Your task to perform on an android device: delete a single message in the gmail app Image 0: 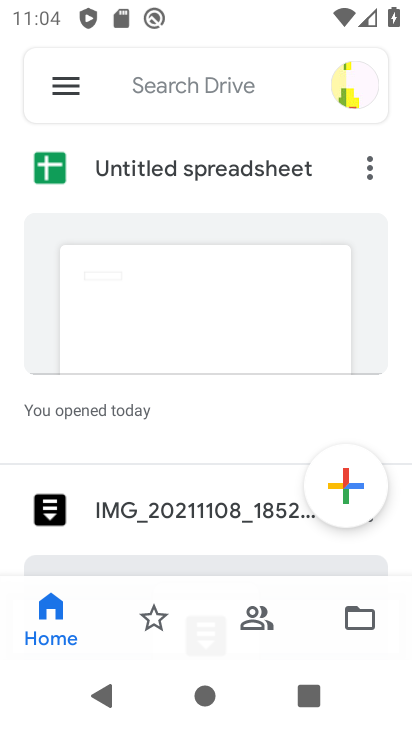
Step 0: press home button
Your task to perform on an android device: delete a single message in the gmail app Image 1: 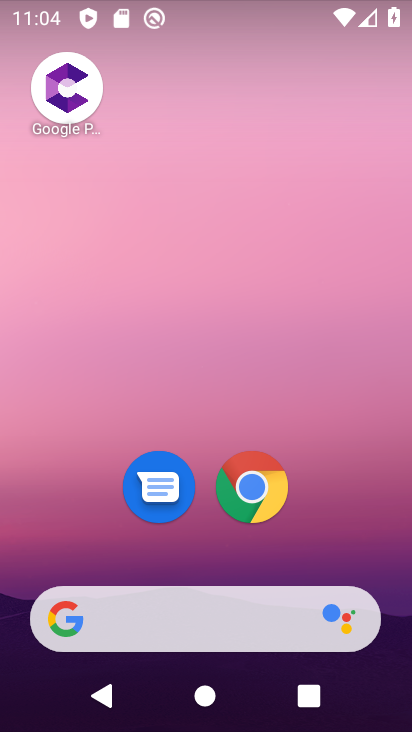
Step 1: drag from (202, 572) to (268, 92)
Your task to perform on an android device: delete a single message in the gmail app Image 2: 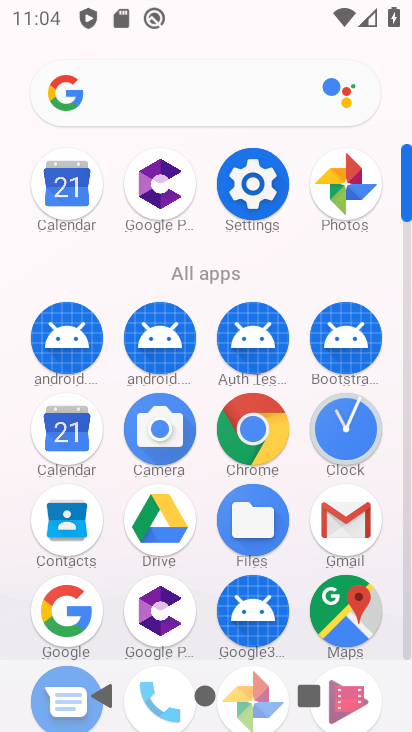
Step 2: click (338, 512)
Your task to perform on an android device: delete a single message in the gmail app Image 3: 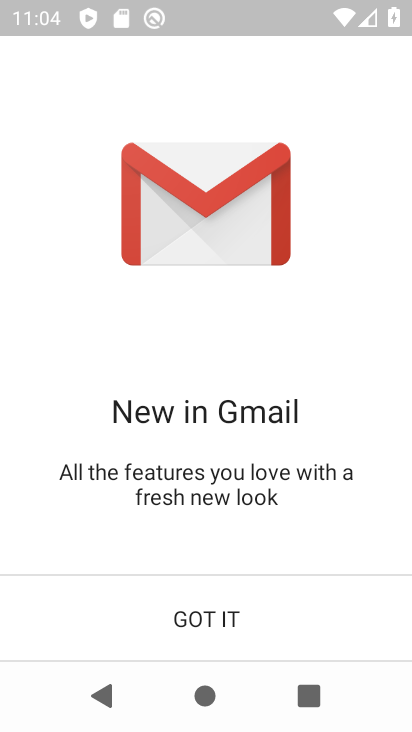
Step 3: click (210, 634)
Your task to perform on an android device: delete a single message in the gmail app Image 4: 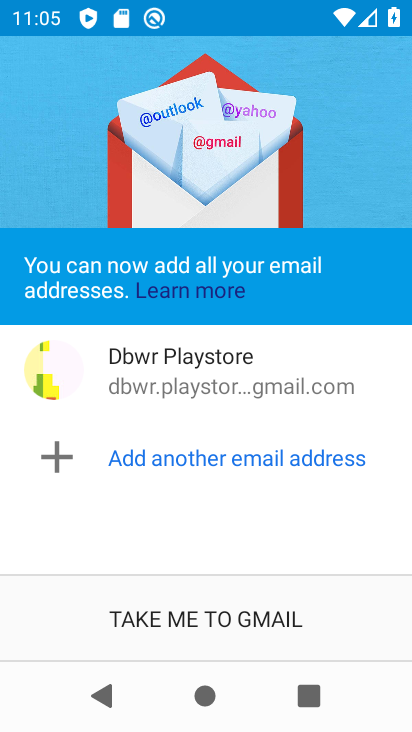
Step 4: click (210, 634)
Your task to perform on an android device: delete a single message in the gmail app Image 5: 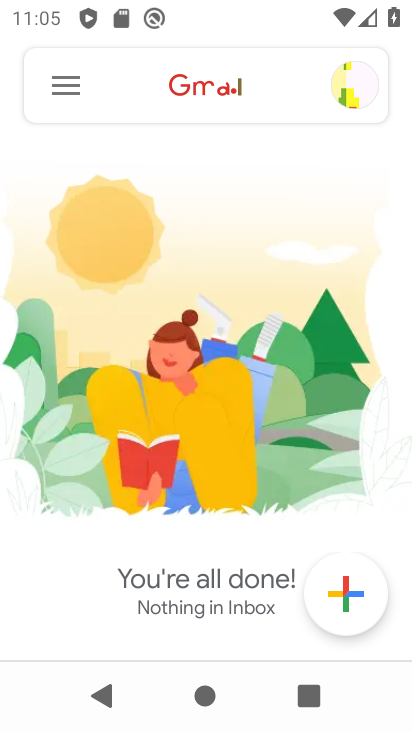
Step 5: click (80, 90)
Your task to perform on an android device: delete a single message in the gmail app Image 6: 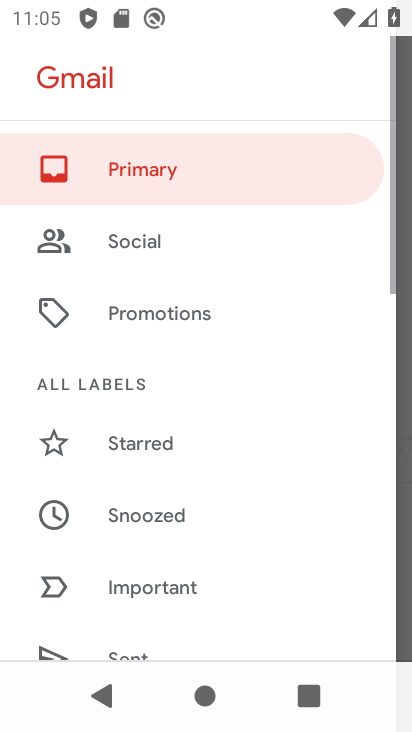
Step 6: task complete